Your task to perform on an android device: Search for Mexican restaurants on Maps Image 0: 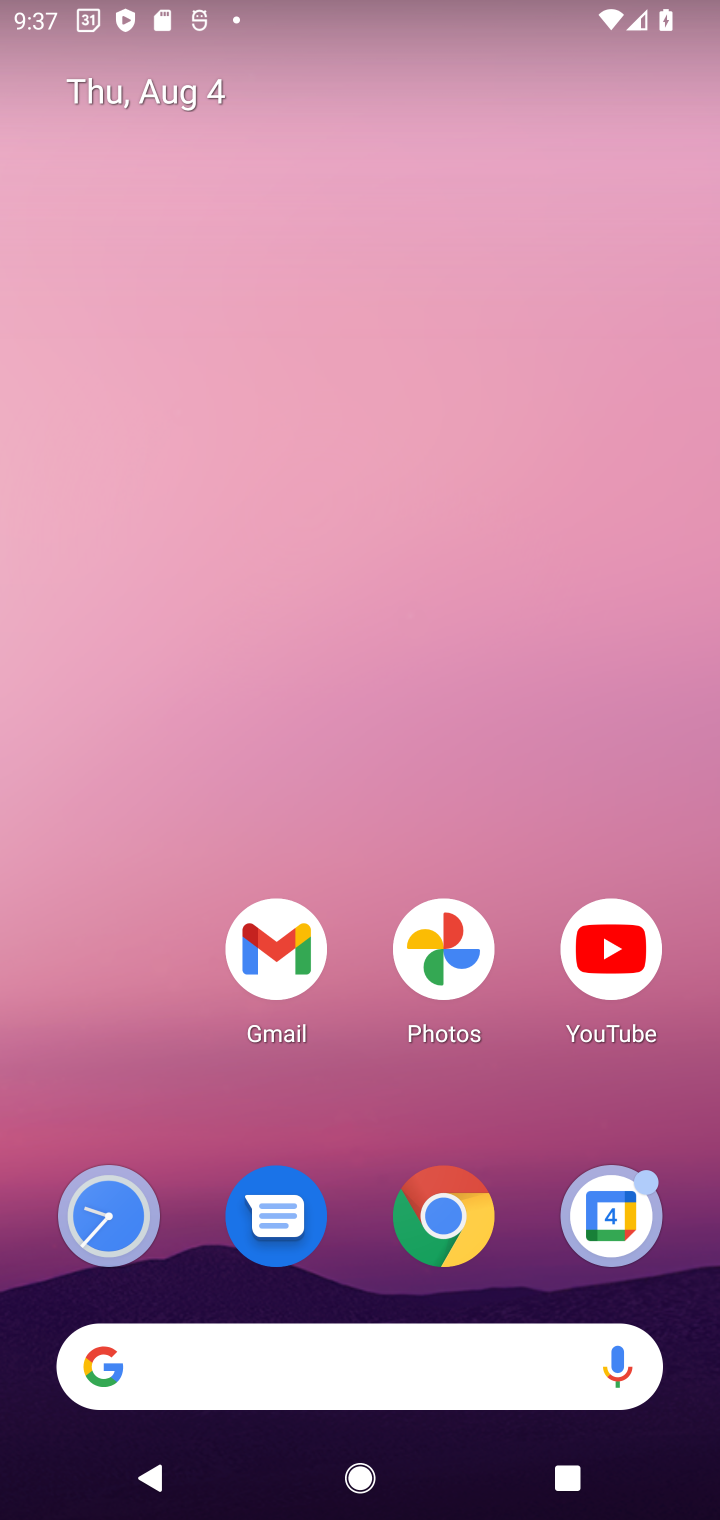
Step 0: drag from (300, 1366) to (444, 348)
Your task to perform on an android device: Search for Mexican restaurants on Maps Image 1: 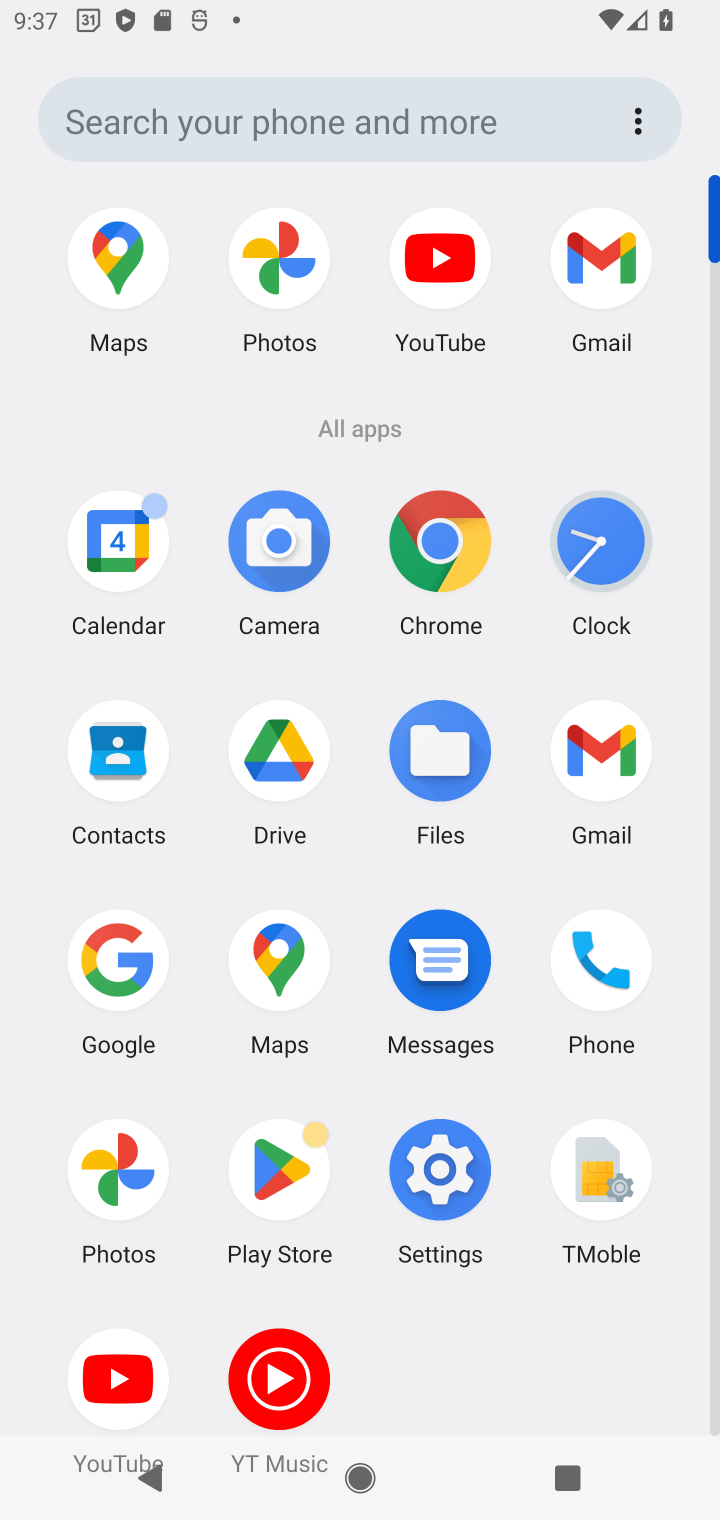
Step 1: click (282, 969)
Your task to perform on an android device: Search for Mexican restaurants on Maps Image 2: 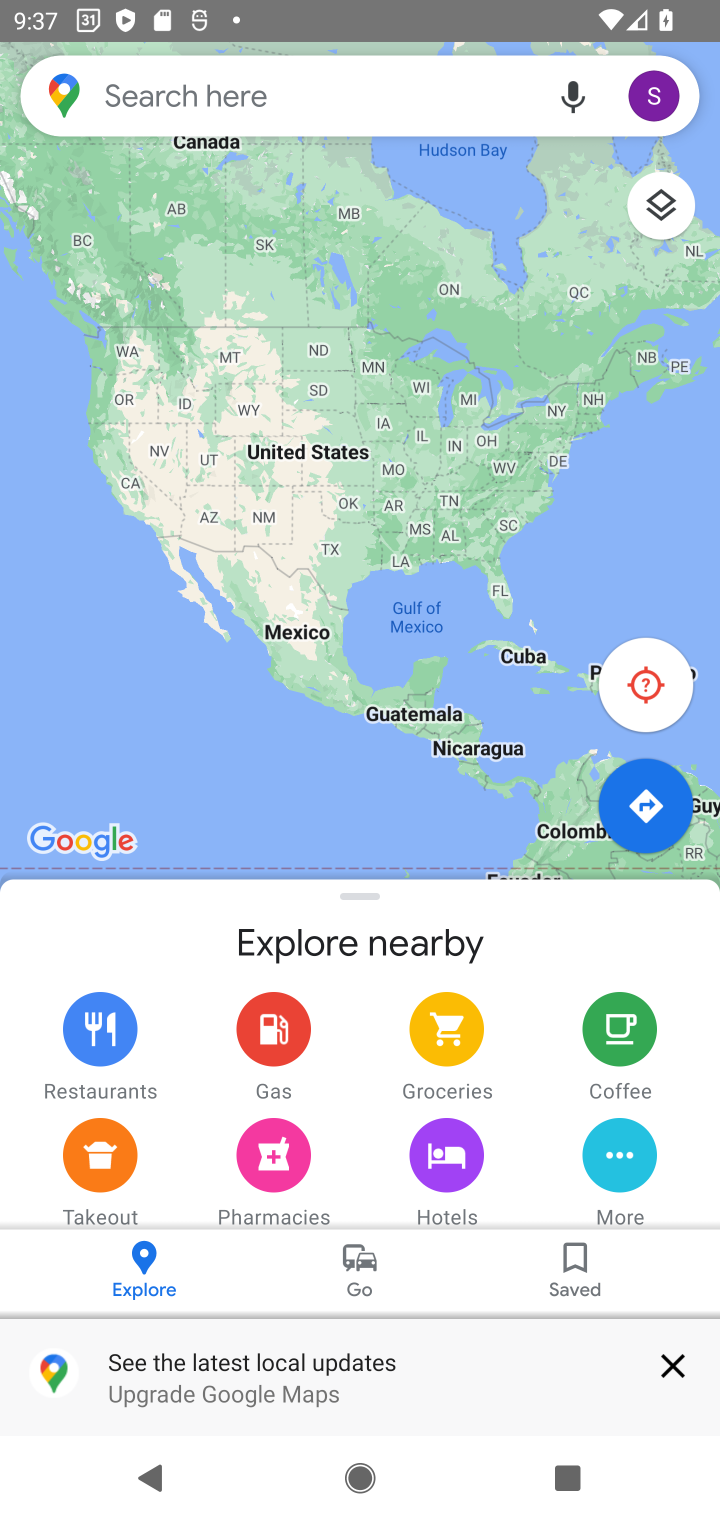
Step 2: click (291, 107)
Your task to perform on an android device: Search for Mexican restaurants on Maps Image 3: 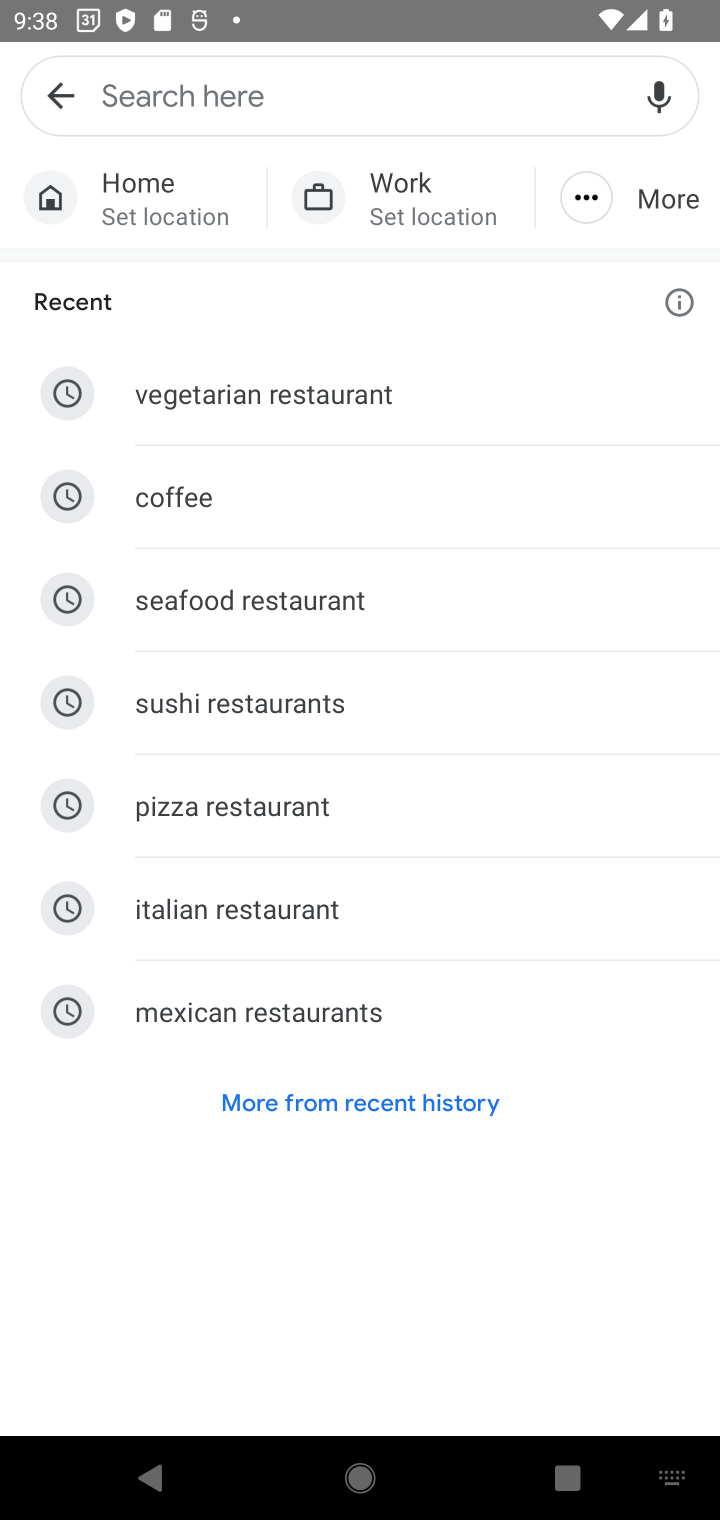
Step 3: type "Mexican restaurants"
Your task to perform on an android device: Search for Mexican restaurants on Maps Image 4: 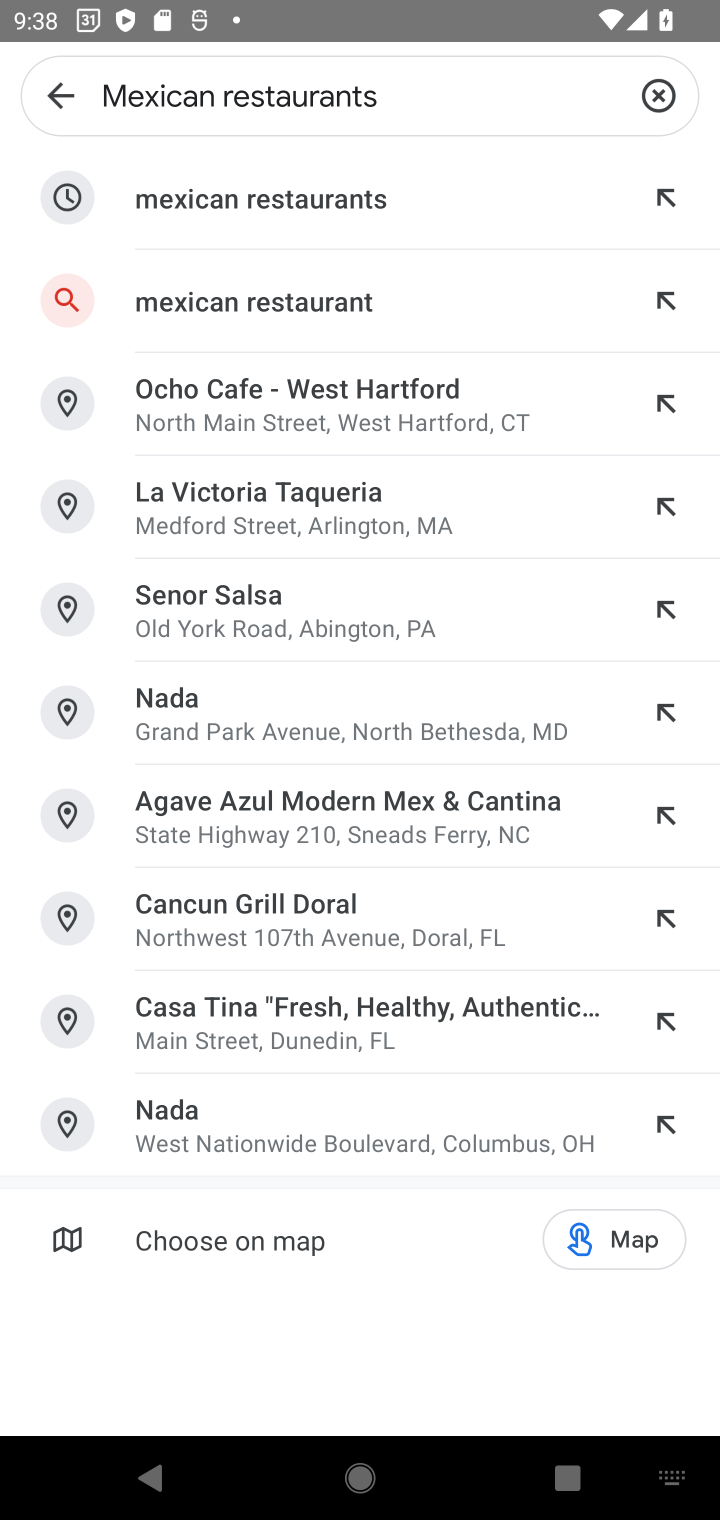
Step 4: click (364, 191)
Your task to perform on an android device: Search for Mexican restaurants on Maps Image 5: 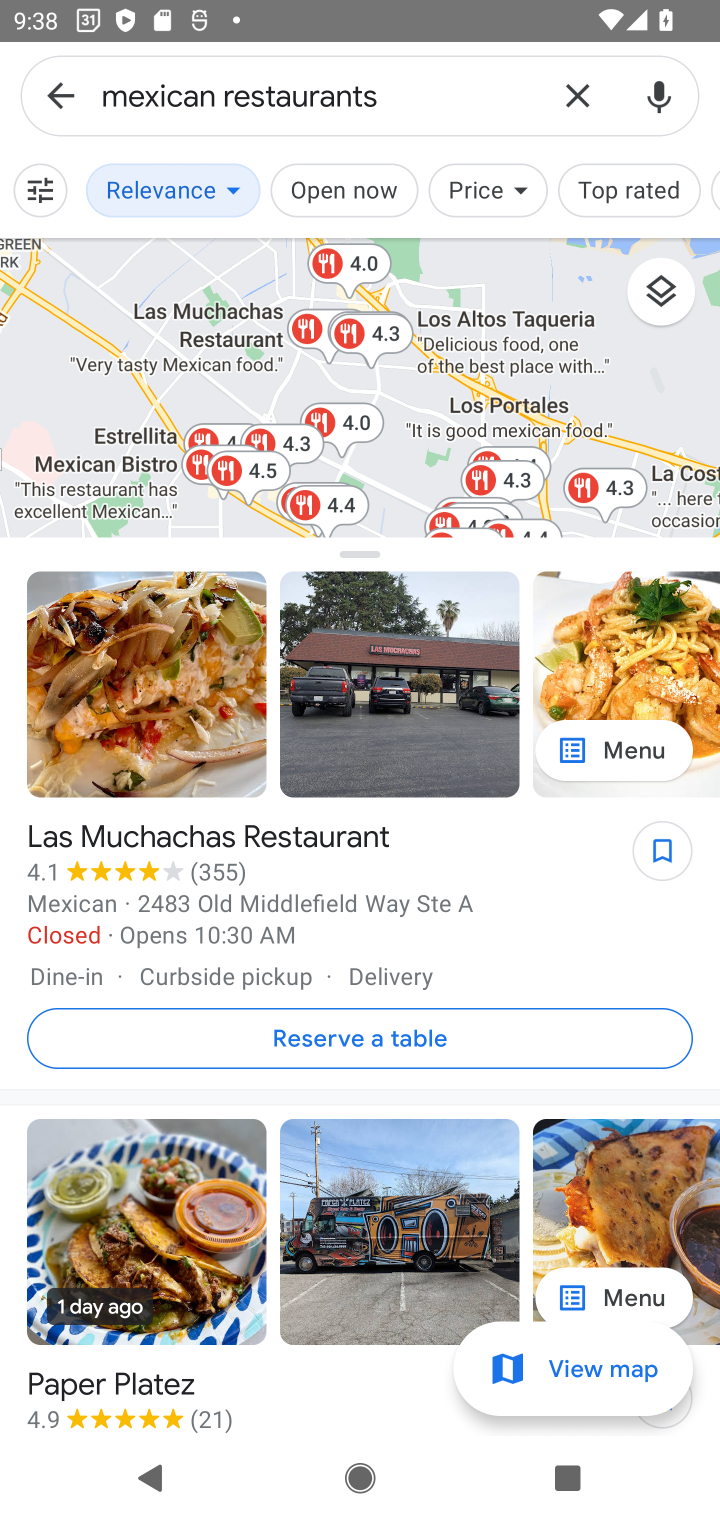
Step 5: task complete